Your task to perform on an android device: find which apps use the phone's location Image 0: 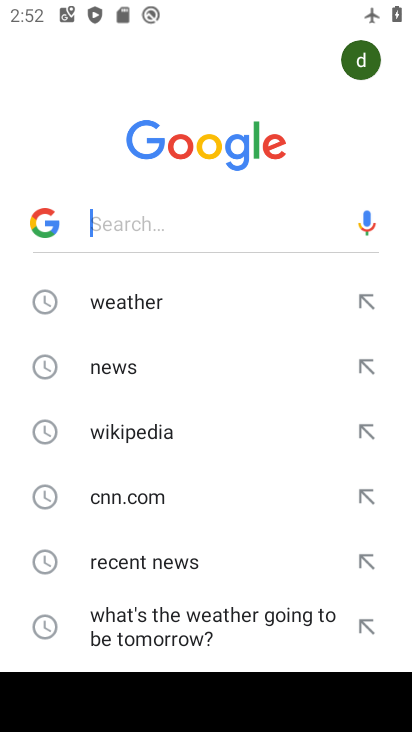
Step 0: press home button
Your task to perform on an android device: find which apps use the phone's location Image 1: 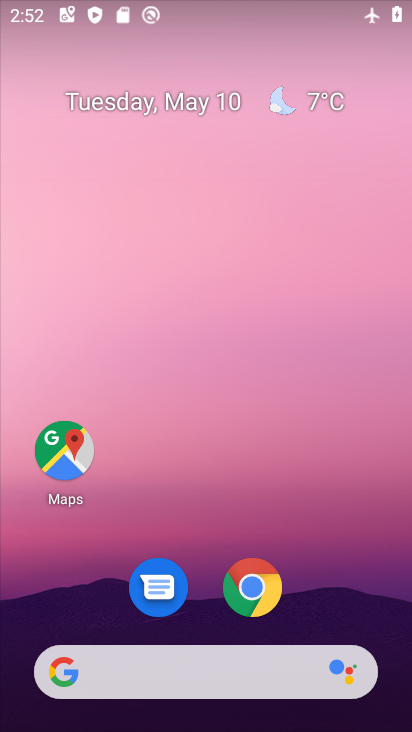
Step 1: drag from (253, 505) to (216, 3)
Your task to perform on an android device: find which apps use the phone's location Image 2: 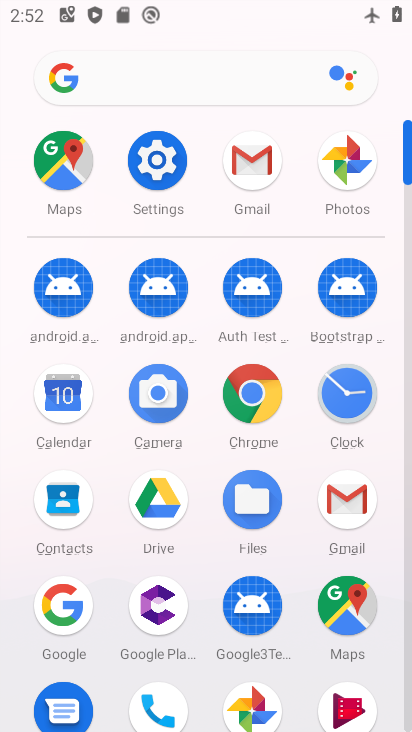
Step 2: drag from (200, 253) to (191, 87)
Your task to perform on an android device: find which apps use the phone's location Image 3: 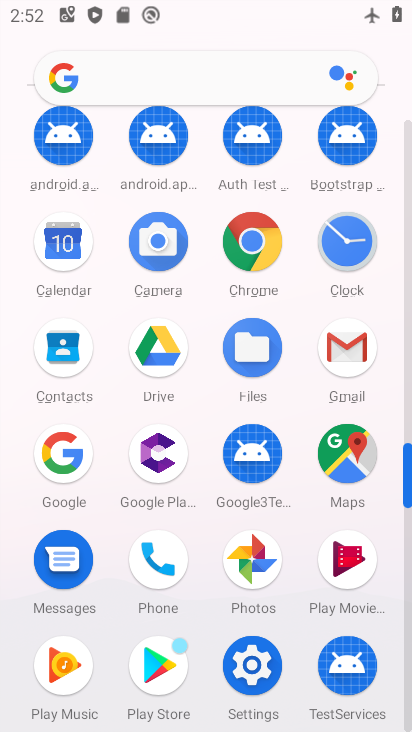
Step 3: click (157, 570)
Your task to perform on an android device: find which apps use the phone's location Image 4: 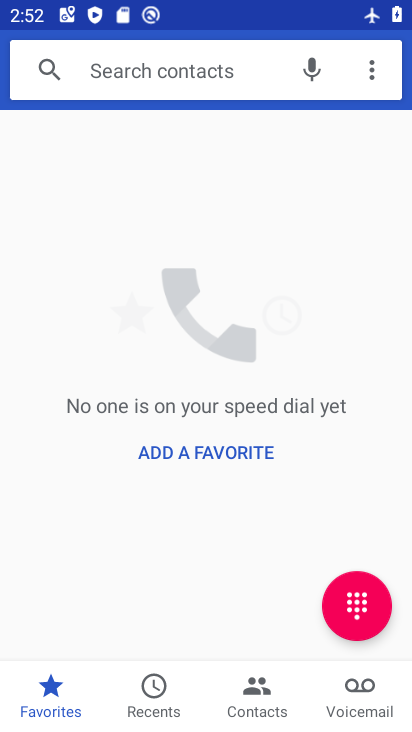
Step 4: press home button
Your task to perform on an android device: find which apps use the phone's location Image 5: 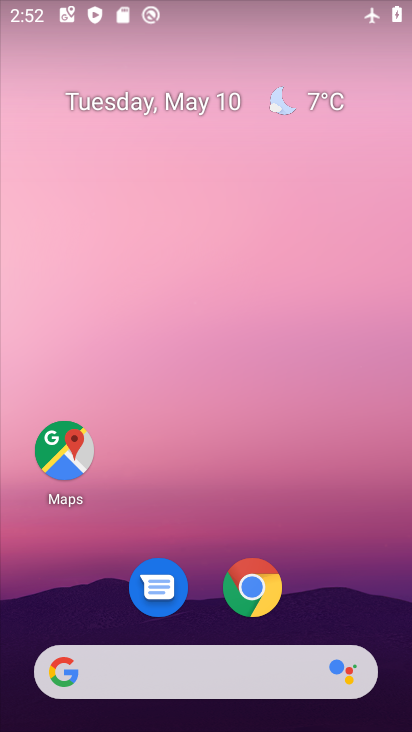
Step 5: drag from (365, 572) to (320, 7)
Your task to perform on an android device: find which apps use the phone's location Image 6: 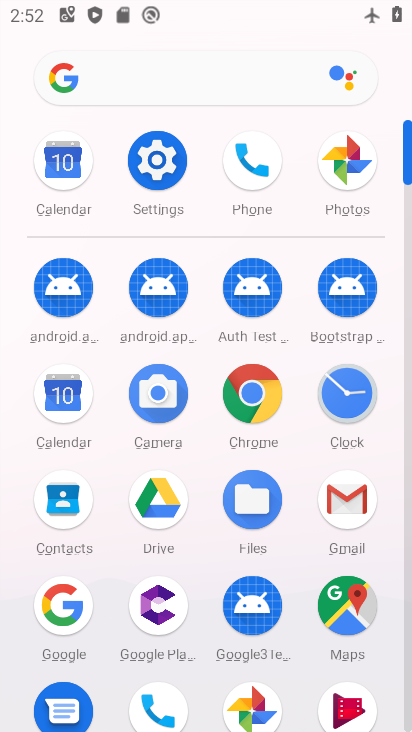
Step 6: click (161, 163)
Your task to perform on an android device: find which apps use the phone's location Image 7: 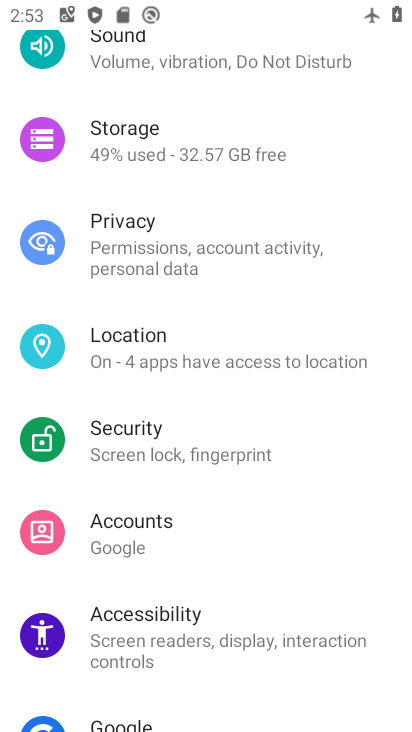
Step 7: click (155, 354)
Your task to perform on an android device: find which apps use the phone's location Image 8: 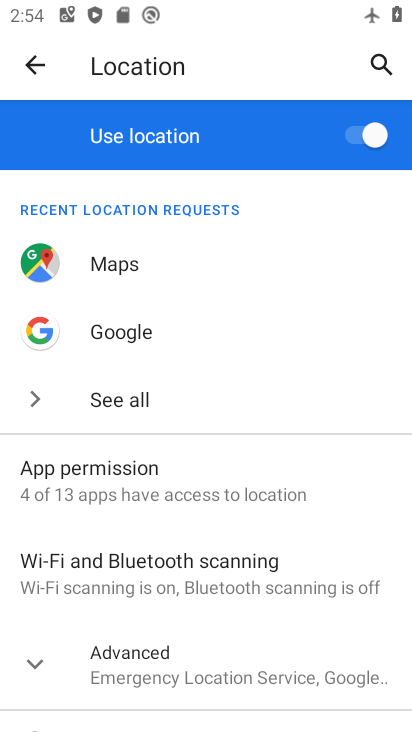
Step 8: drag from (163, 595) to (142, 401)
Your task to perform on an android device: find which apps use the phone's location Image 9: 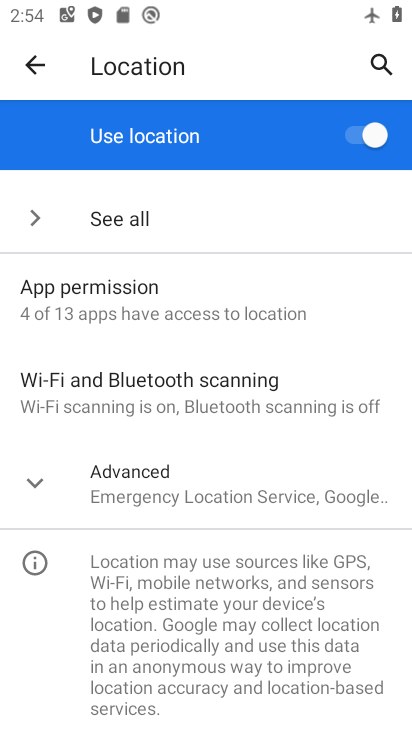
Step 9: click (133, 289)
Your task to perform on an android device: find which apps use the phone's location Image 10: 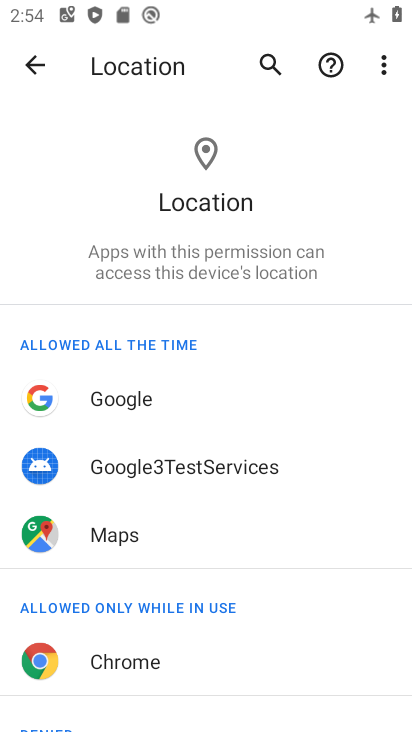
Step 10: task complete